Your task to perform on an android device: Turn off the flashlight Image 0: 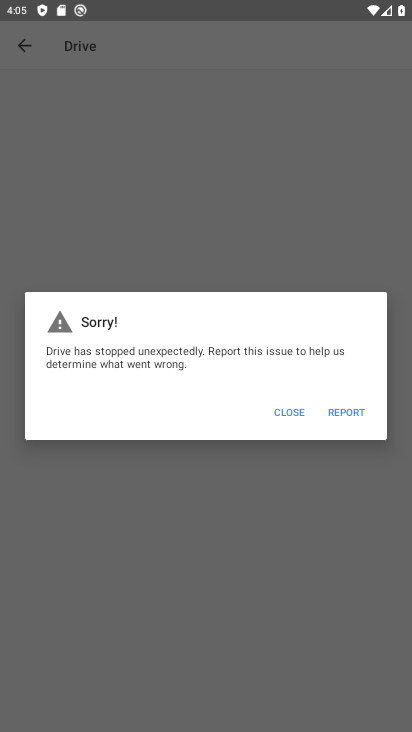
Step 0: press home button
Your task to perform on an android device: Turn off the flashlight Image 1: 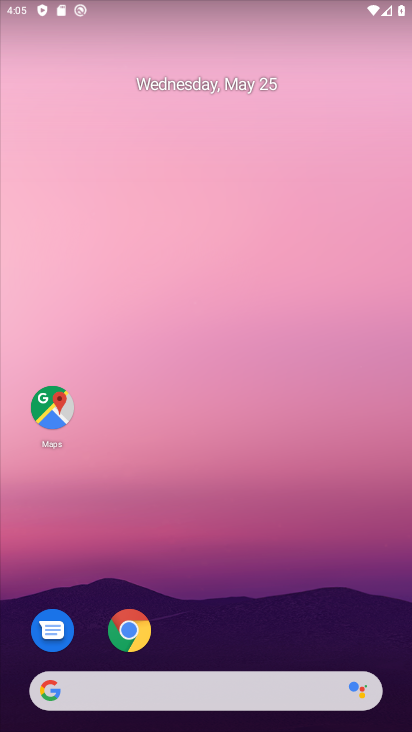
Step 1: drag from (218, 609) to (259, 103)
Your task to perform on an android device: Turn off the flashlight Image 2: 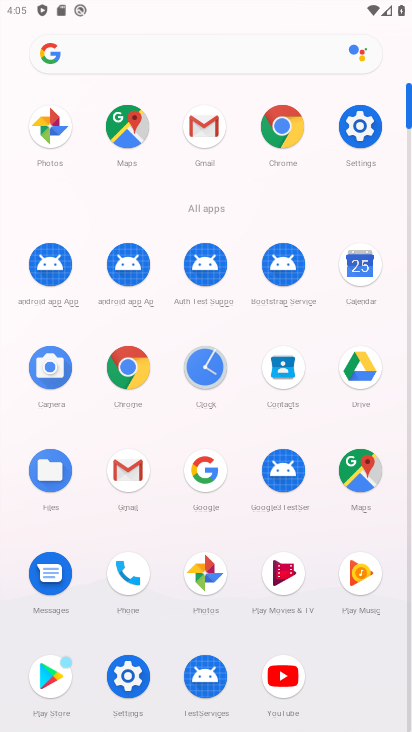
Step 2: click (367, 124)
Your task to perform on an android device: Turn off the flashlight Image 3: 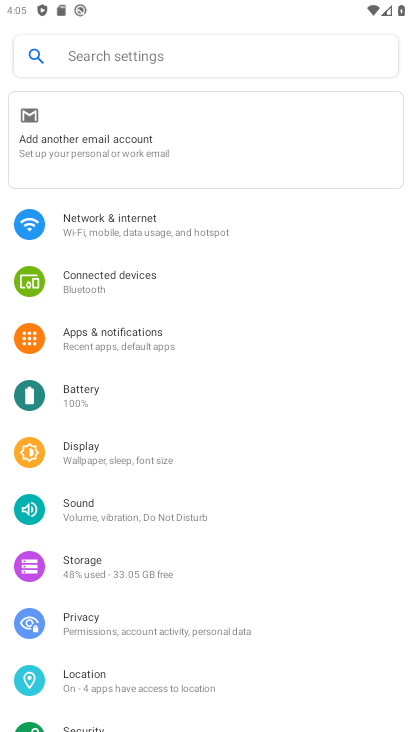
Step 3: click (104, 47)
Your task to perform on an android device: Turn off the flashlight Image 4: 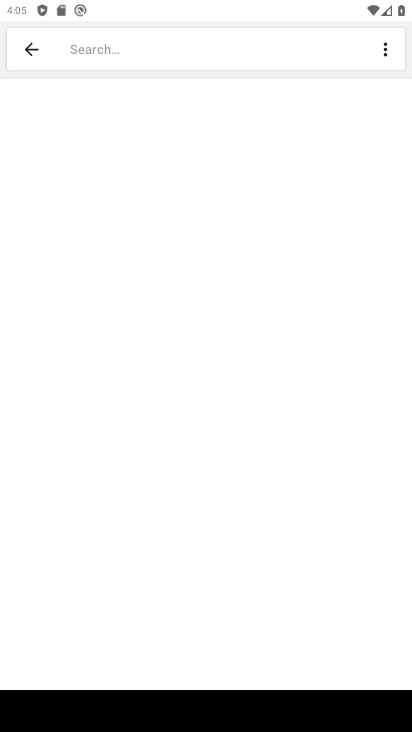
Step 4: type "flashlight"
Your task to perform on an android device: Turn off the flashlight Image 5: 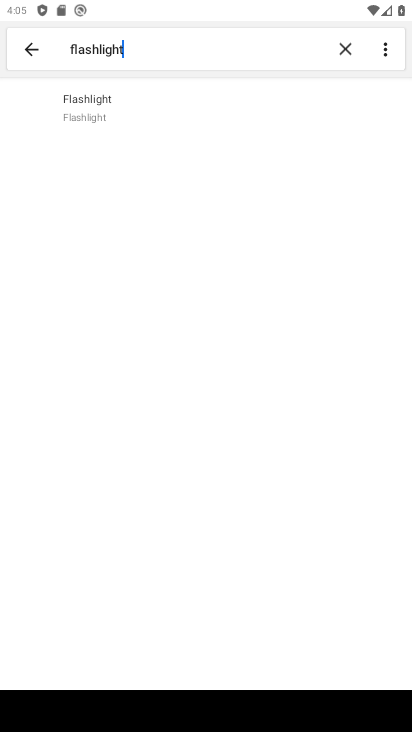
Step 5: click (92, 106)
Your task to perform on an android device: Turn off the flashlight Image 6: 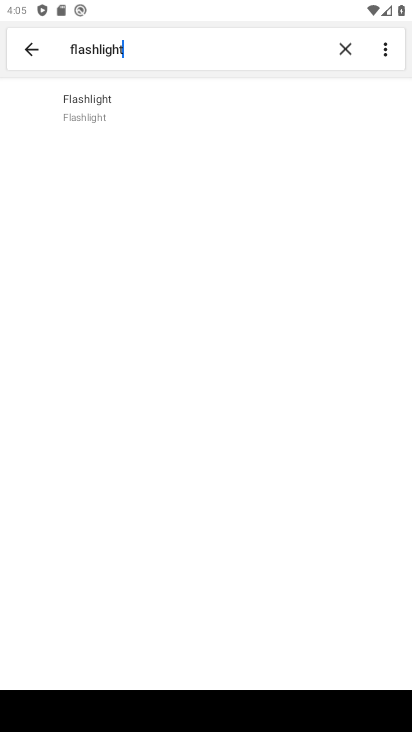
Step 6: task complete